Your task to perform on an android device: find snoozed emails in the gmail app Image 0: 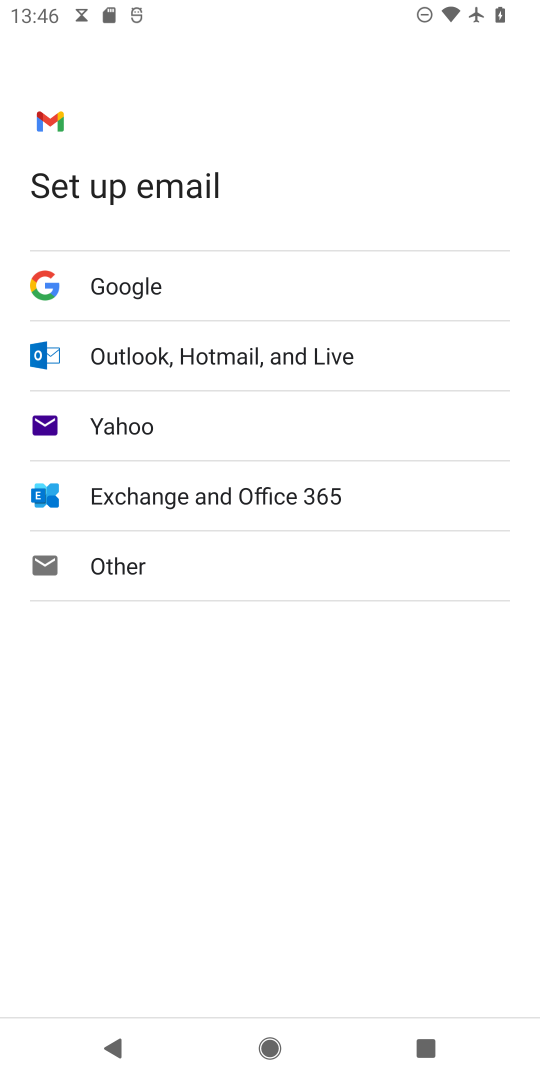
Step 0: press home button
Your task to perform on an android device: find snoozed emails in the gmail app Image 1: 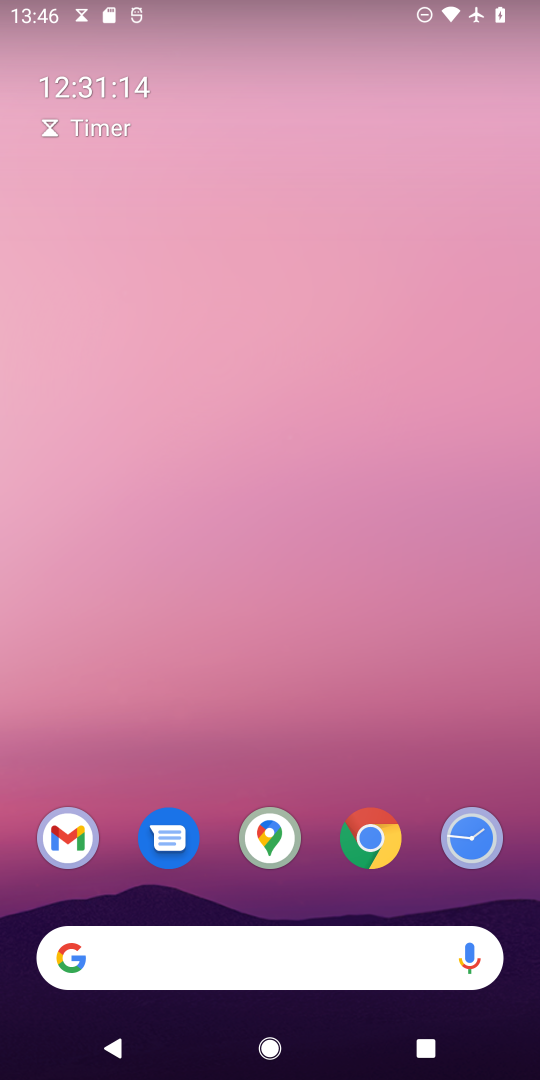
Step 1: click (67, 832)
Your task to perform on an android device: find snoozed emails in the gmail app Image 2: 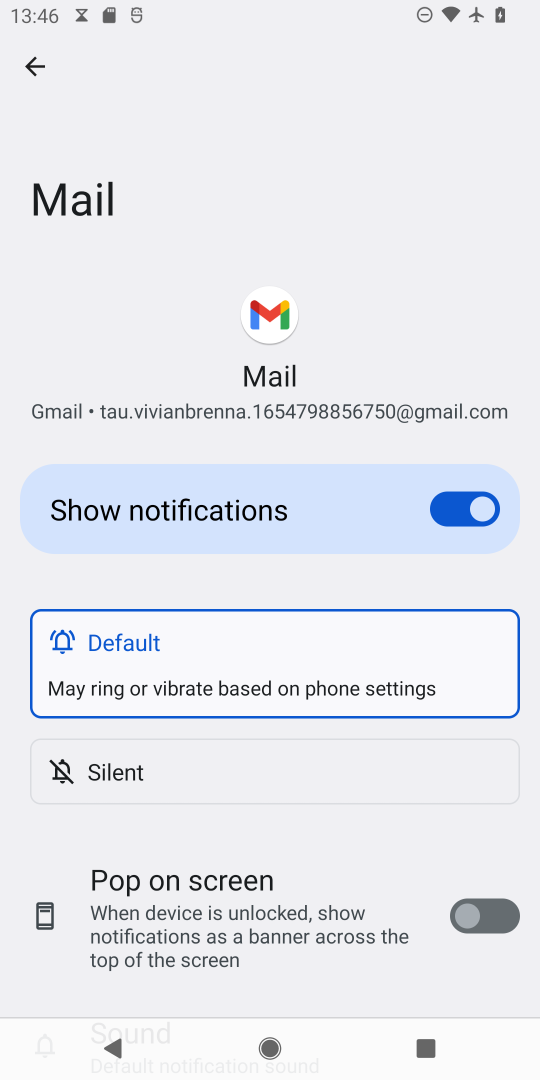
Step 2: click (23, 61)
Your task to perform on an android device: find snoozed emails in the gmail app Image 3: 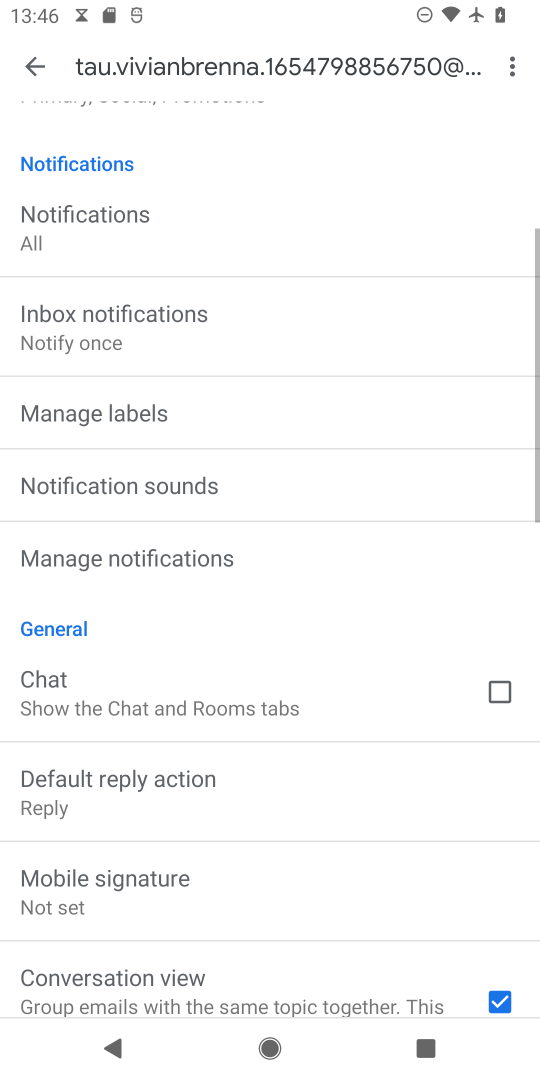
Step 3: click (23, 61)
Your task to perform on an android device: find snoozed emails in the gmail app Image 4: 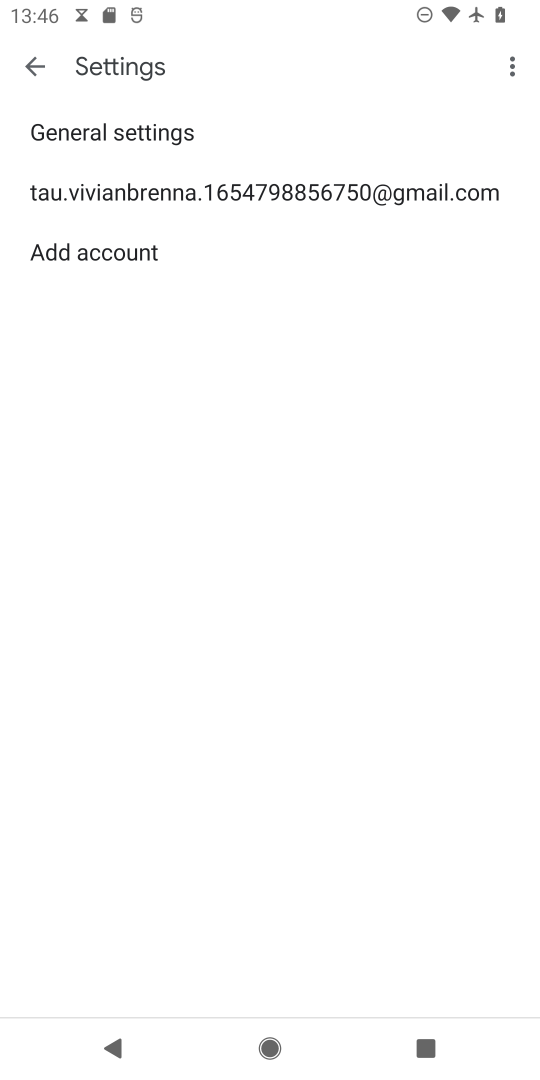
Step 4: click (23, 61)
Your task to perform on an android device: find snoozed emails in the gmail app Image 5: 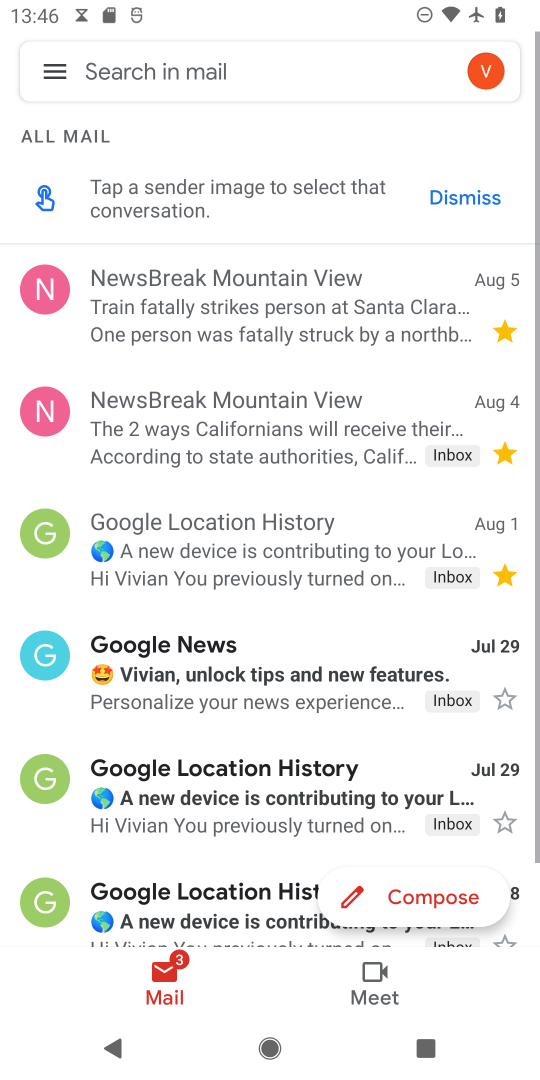
Step 5: click (48, 68)
Your task to perform on an android device: find snoozed emails in the gmail app Image 6: 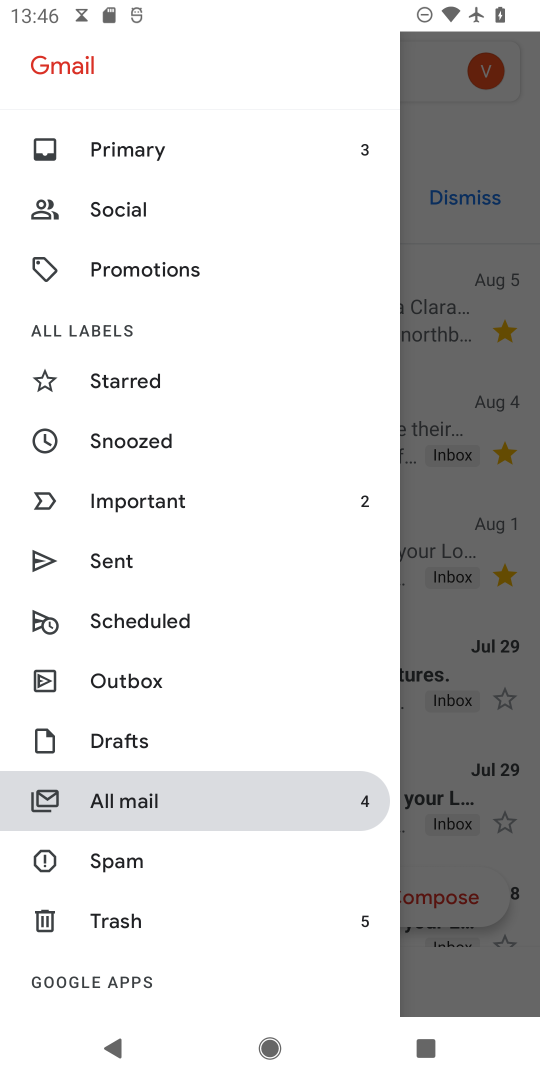
Step 6: click (138, 435)
Your task to perform on an android device: find snoozed emails in the gmail app Image 7: 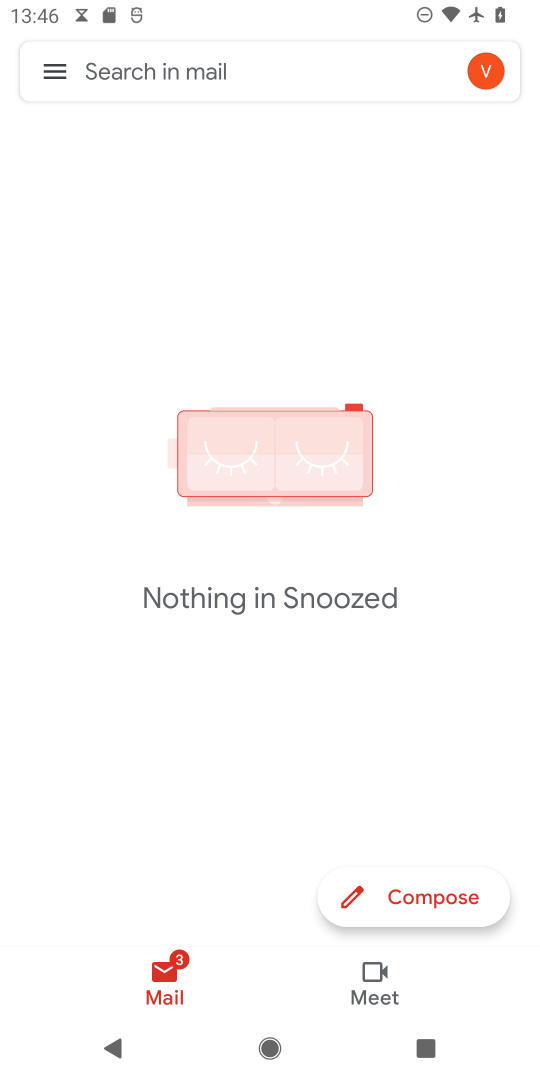
Step 7: task complete